Your task to perform on an android device: toggle pop-ups in chrome Image 0: 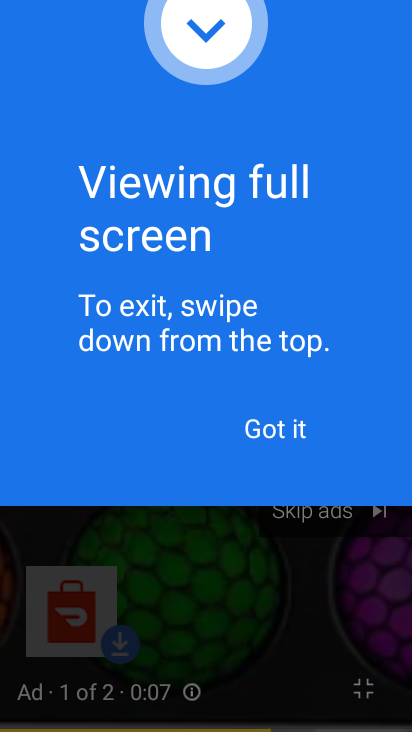
Step 0: press home button
Your task to perform on an android device: toggle pop-ups in chrome Image 1: 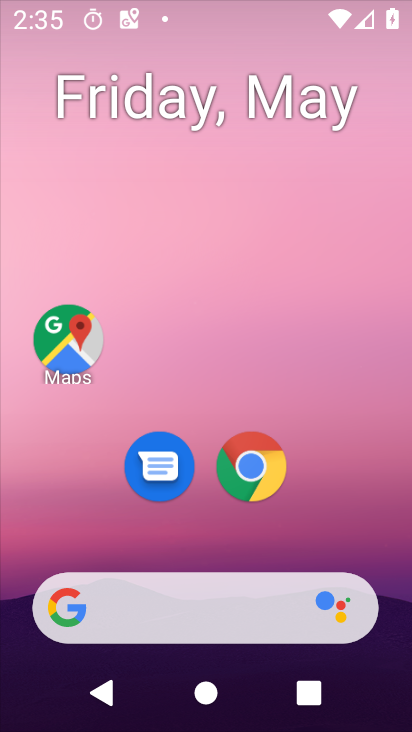
Step 1: drag from (370, 537) to (401, 12)
Your task to perform on an android device: toggle pop-ups in chrome Image 2: 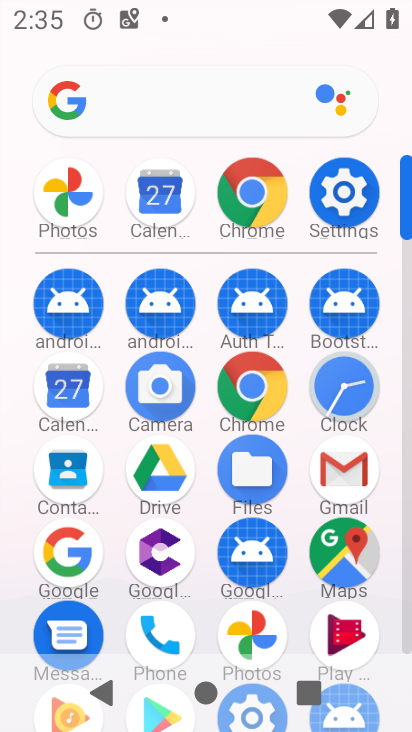
Step 2: click (260, 217)
Your task to perform on an android device: toggle pop-ups in chrome Image 3: 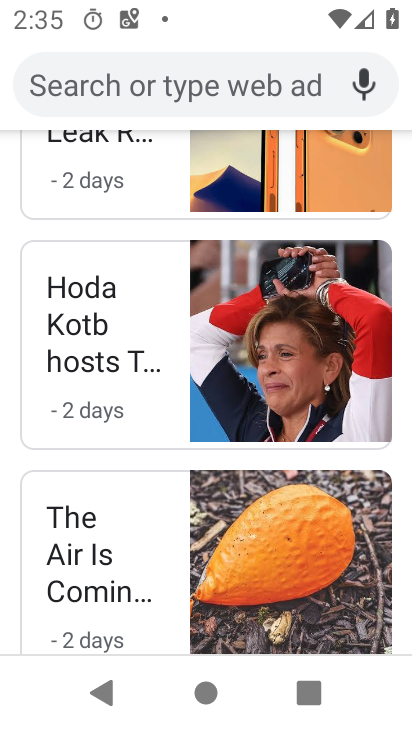
Step 3: drag from (292, 174) to (298, 593)
Your task to perform on an android device: toggle pop-ups in chrome Image 4: 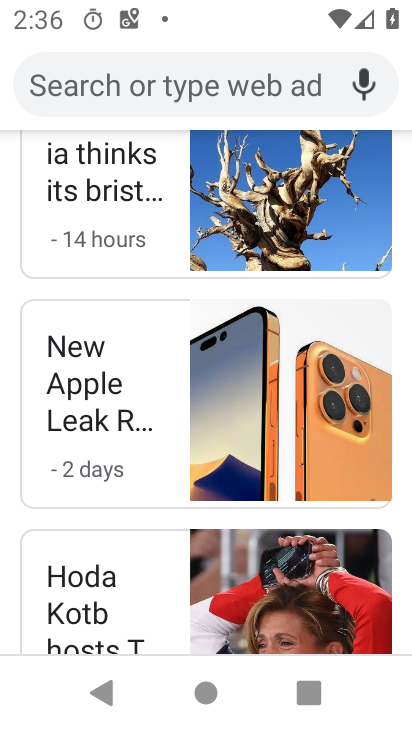
Step 4: drag from (127, 228) to (119, 669)
Your task to perform on an android device: toggle pop-ups in chrome Image 5: 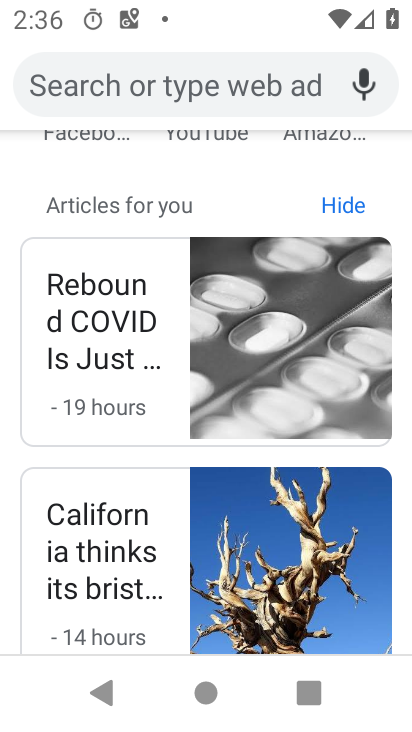
Step 5: drag from (155, 201) to (161, 574)
Your task to perform on an android device: toggle pop-ups in chrome Image 6: 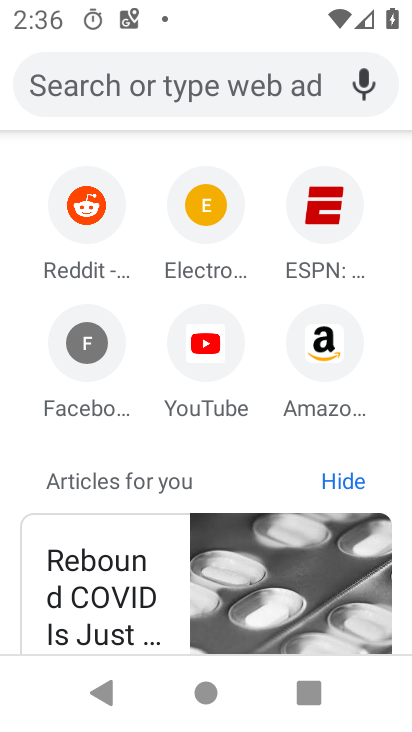
Step 6: drag from (217, 69) to (230, 725)
Your task to perform on an android device: toggle pop-ups in chrome Image 7: 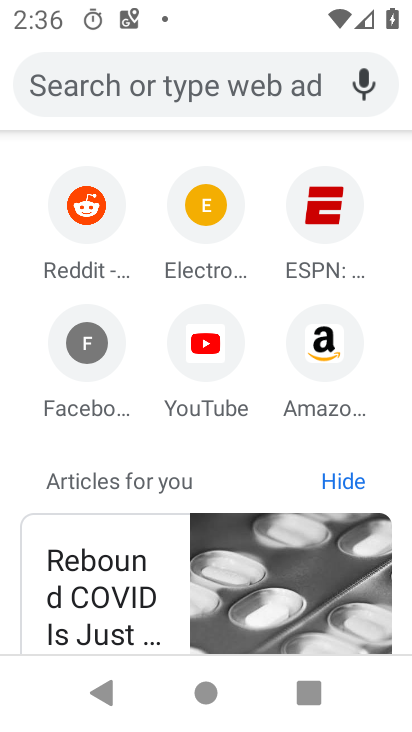
Step 7: drag from (266, 133) to (280, 623)
Your task to perform on an android device: toggle pop-ups in chrome Image 8: 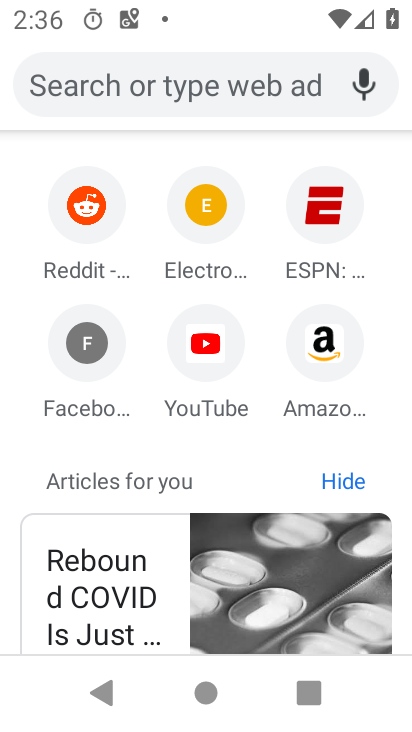
Step 8: drag from (283, 114) to (299, 689)
Your task to perform on an android device: toggle pop-ups in chrome Image 9: 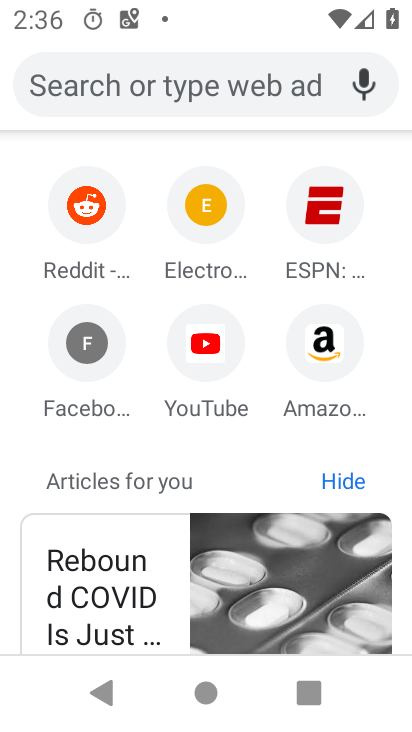
Step 9: drag from (193, 186) to (177, 698)
Your task to perform on an android device: toggle pop-ups in chrome Image 10: 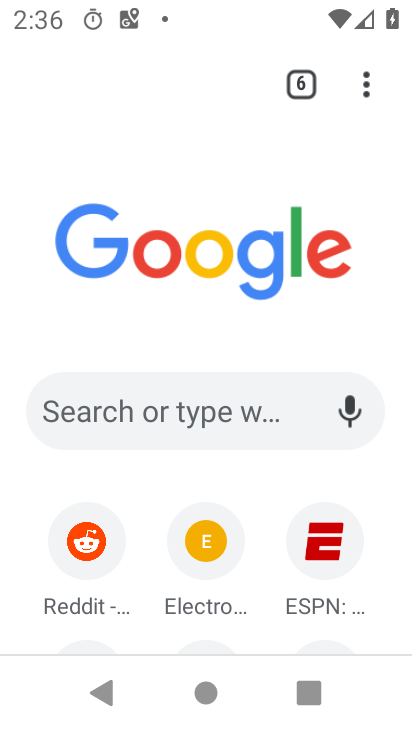
Step 10: drag from (363, 92) to (118, 499)
Your task to perform on an android device: toggle pop-ups in chrome Image 11: 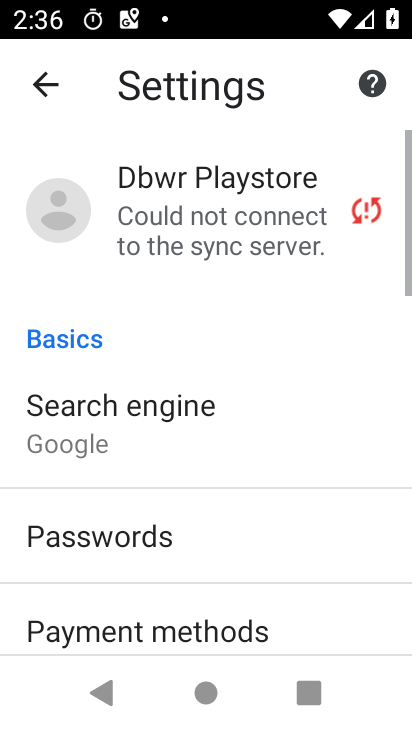
Step 11: drag from (189, 605) to (260, 99)
Your task to perform on an android device: toggle pop-ups in chrome Image 12: 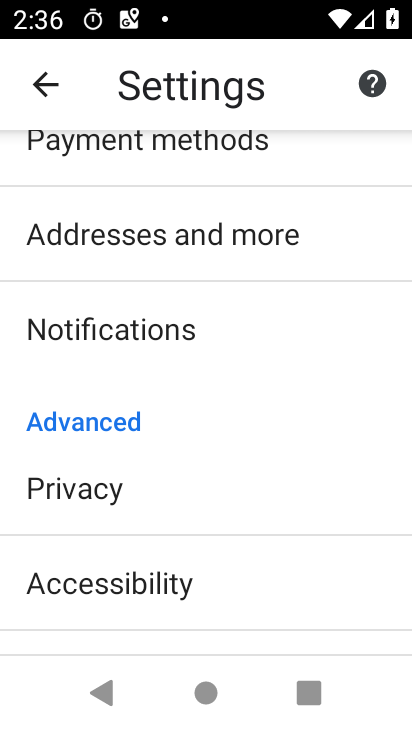
Step 12: drag from (229, 575) to (255, 152)
Your task to perform on an android device: toggle pop-ups in chrome Image 13: 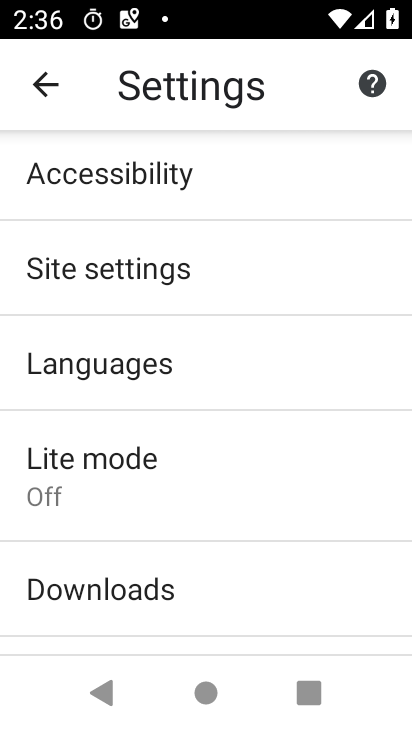
Step 13: click (153, 274)
Your task to perform on an android device: toggle pop-ups in chrome Image 14: 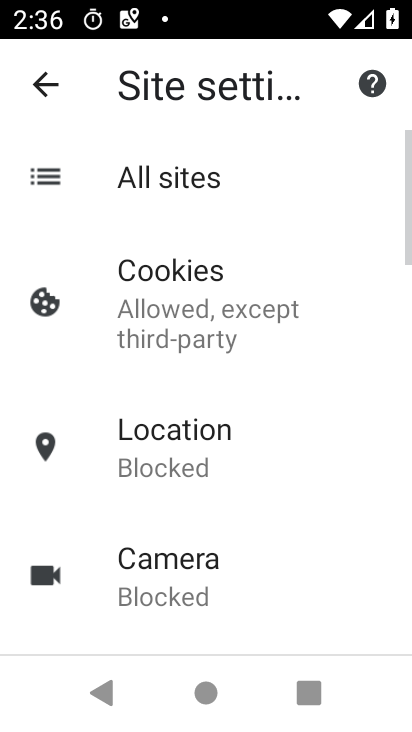
Step 14: drag from (162, 645) to (239, 131)
Your task to perform on an android device: toggle pop-ups in chrome Image 15: 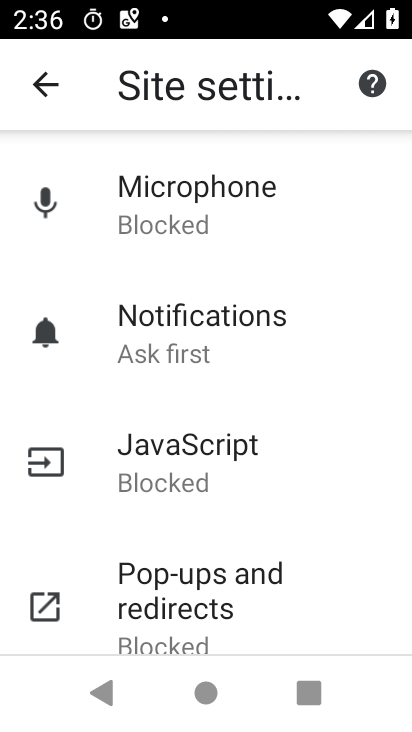
Step 15: drag from (221, 567) to (251, 181)
Your task to perform on an android device: toggle pop-ups in chrome Image 16: 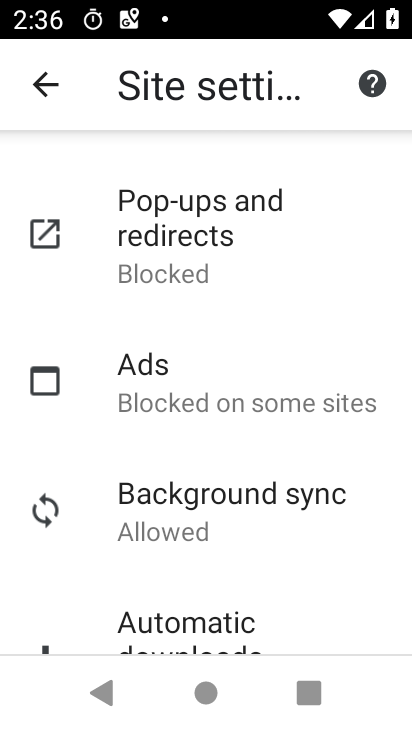
Step 16: click (202, 235)
Your task to perform on an android device: toggle pop-ups in chrome Image 17: 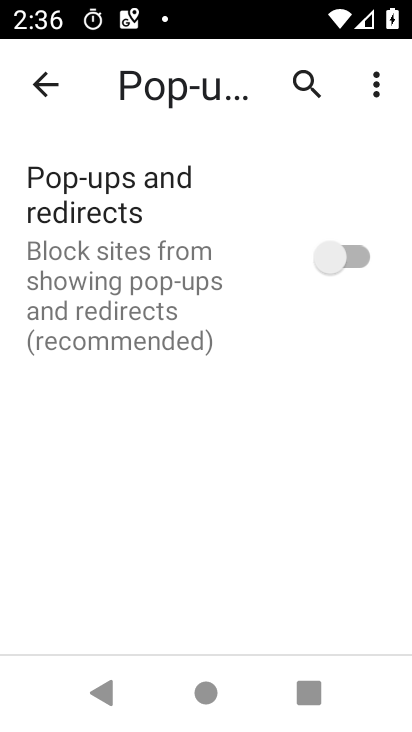
Step 17: click (344, 252)
Your task to perform on an android device: toggle pop-ups in chrome Image 18: 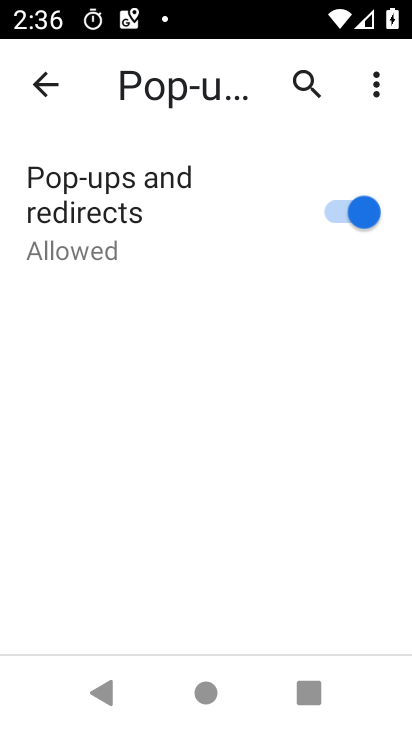
Step 18: task complete